Your task to perform on an android device: toggle show notifications on the lock screen Image 0: 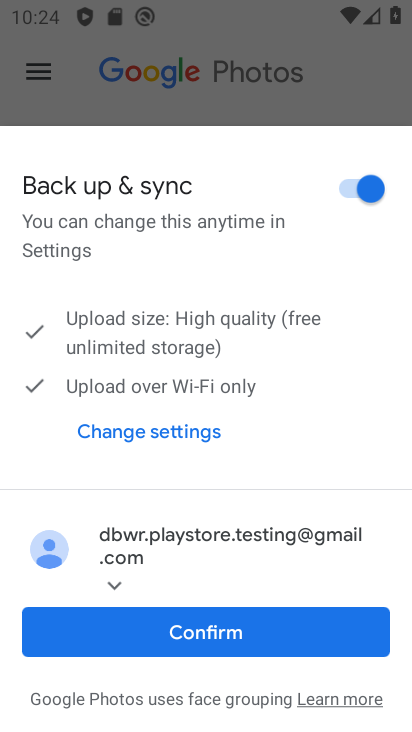
Step 0: press home button
Your task to perform on an android device: toggle show notifications on the lock screen Image 1: 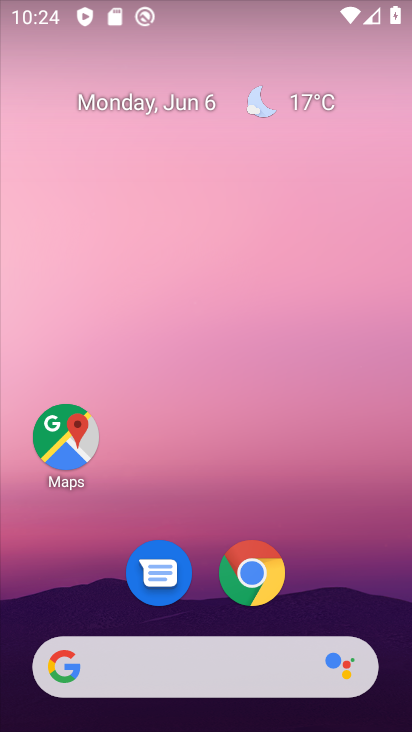
Step 1: drag from (377, 596) to (271, 20)
Your task to perform on an android device: toggle show notifications on the lock screen Image 2: 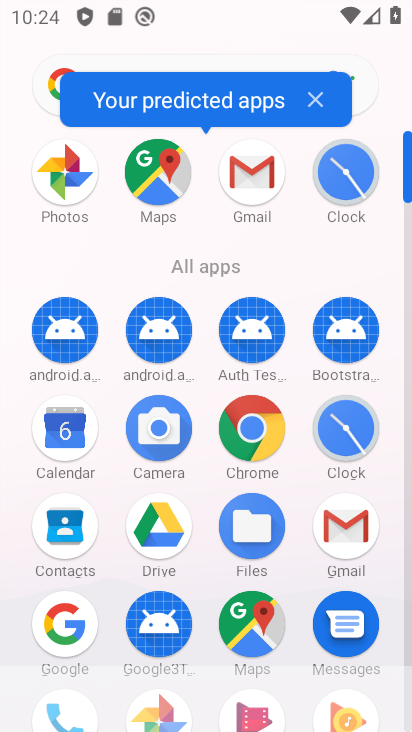
Step 2: click (409, 657)
Your task to perform on an android device: toggle show notifications on the lock screen Image 3: 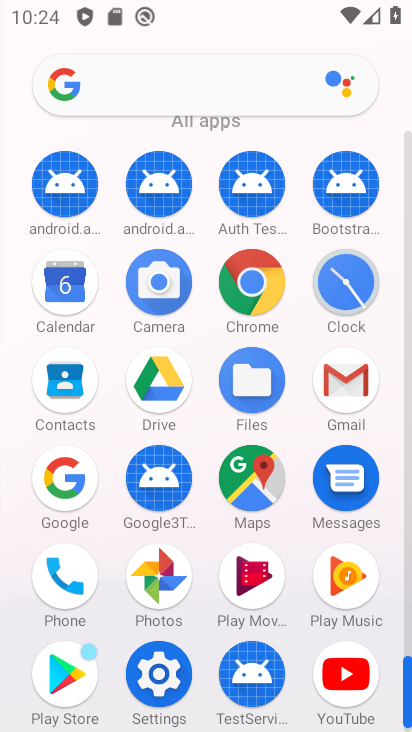
Step 3: click (172, 681)
Your task to perform on an android device: toggle show notifications on the lock screen Image 4: 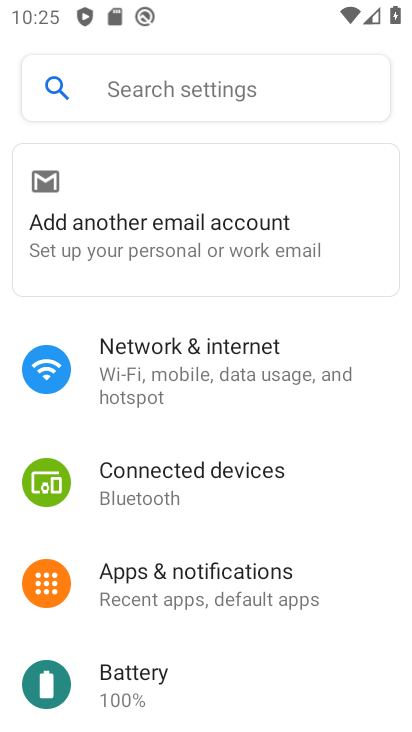
Step 4: click (228, 567)
Your task to perform on an android device: toggle show notifications on the lock screen Image 5: 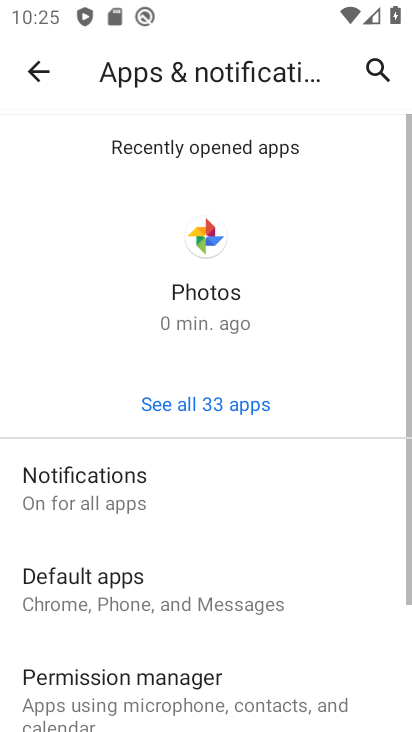
Step 5: click (205, 491)
Your task to perform on an android device: toggle show notifications on the lock screen Image 6: 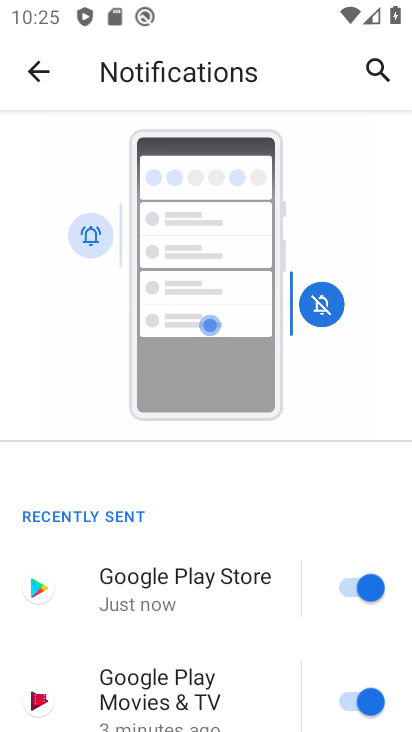
Step 6: drag from (259, 708) to (256, 20)
Your task to perform on an android device: toggle show notifications on the lock screen Image 7: 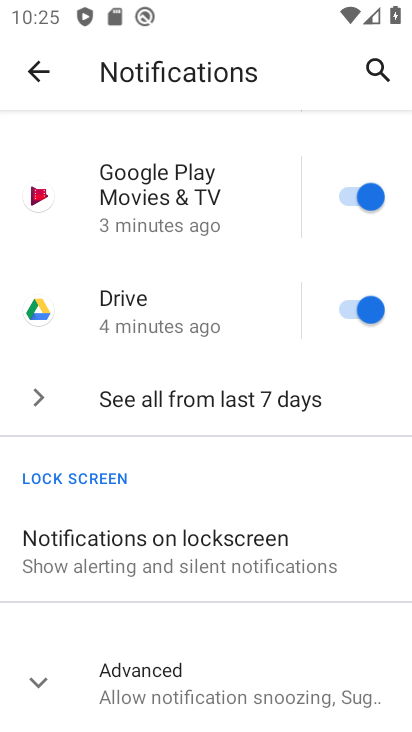
Step 7: click (273, 526)
Your task to perform on an android device: toggle show notifications on the lock screen Image 8: 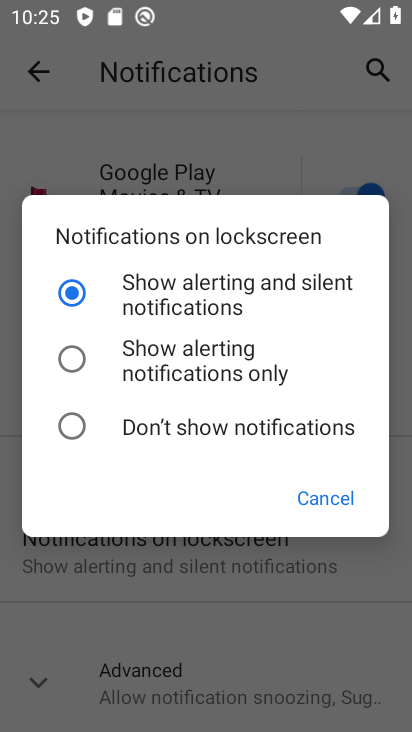
Step 8: click (234, 384)
Your task to perform on an android device: toggle show notifications on the lock screen Image 9: 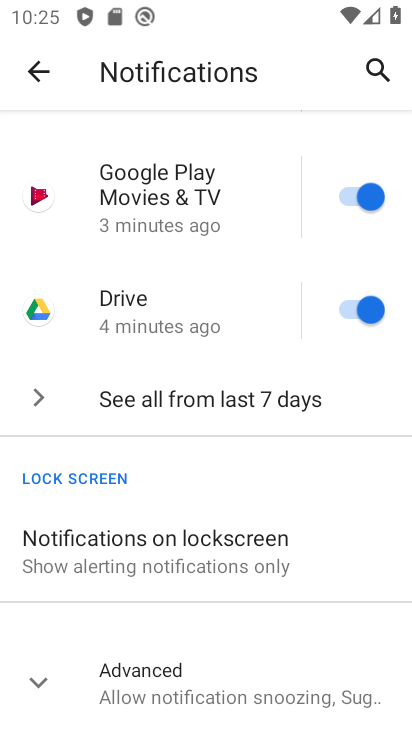
Step 9: task complete